Your task to perform on an android device: open wifi settings Image 0: 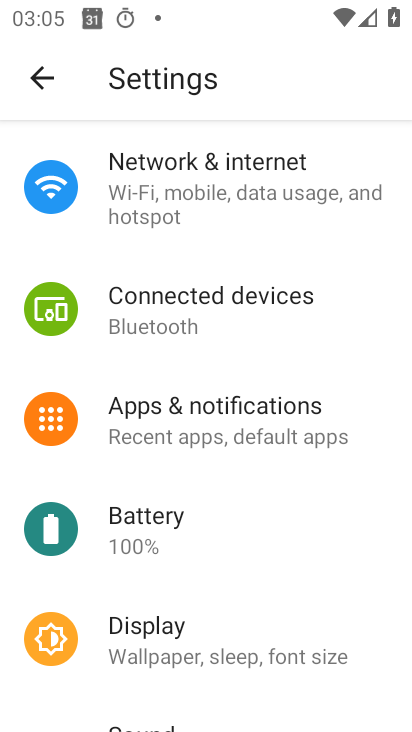
Step 0: press back button
Your task to perform on an android device: open wifi settings Image 1: 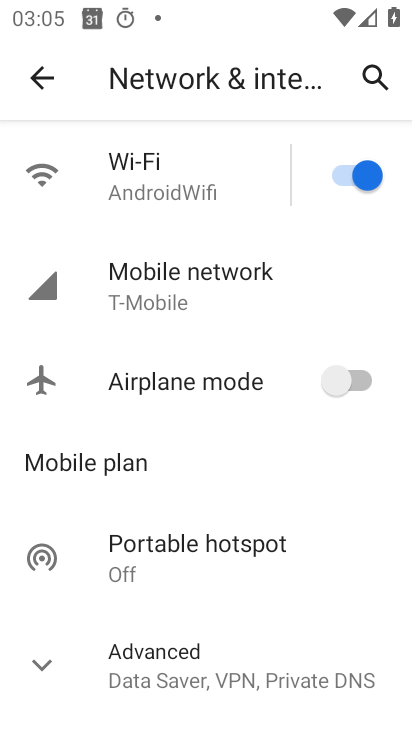
Step 1: press back button
Your task to perform on an android device: open wifi settings Image 2: 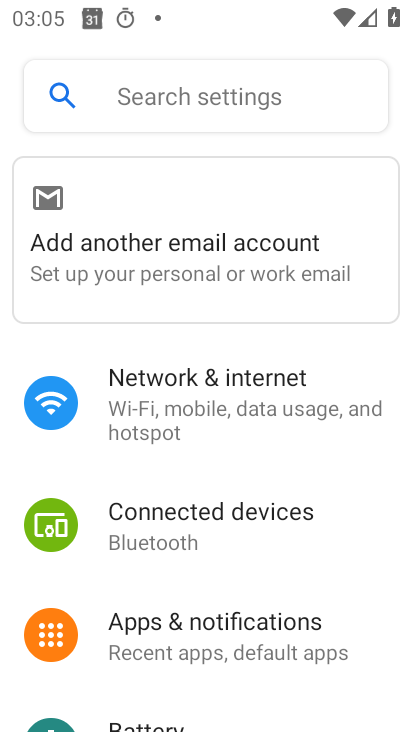
Step 2: click (180, 372)
Your task to perform on an android device: open wifi settings Image 3: 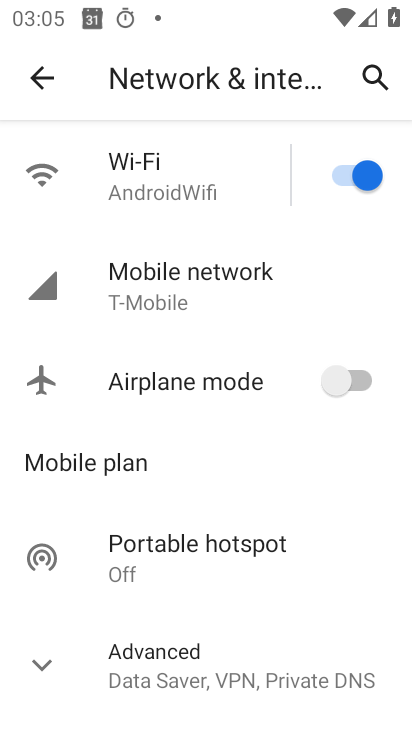
Step 3: click (134, 177)
Your task to perform on an android device: open wifi settings Image 4: 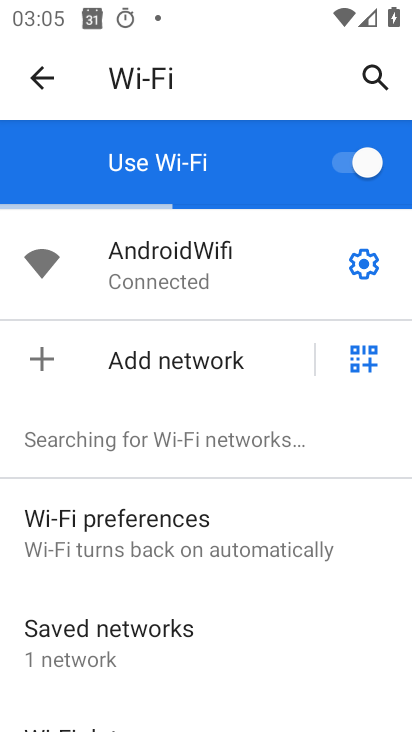
Step 4: click (365, 265)
Your task to perform on an android device: open wifi settings Image 5: 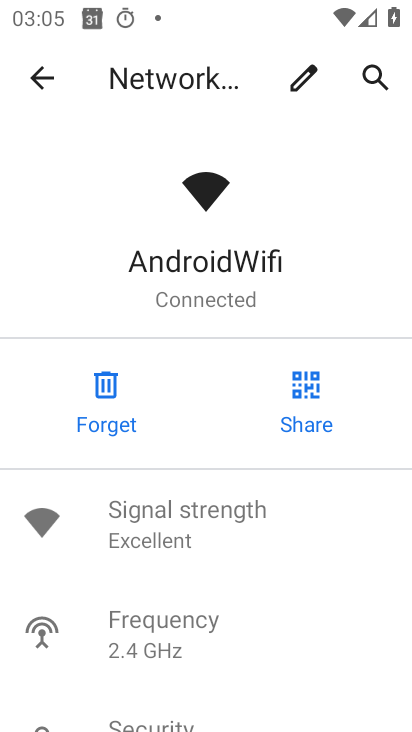
Step 5: task complete